Your task to perform on an android device: visit the assistant section in the google photos Image 0: 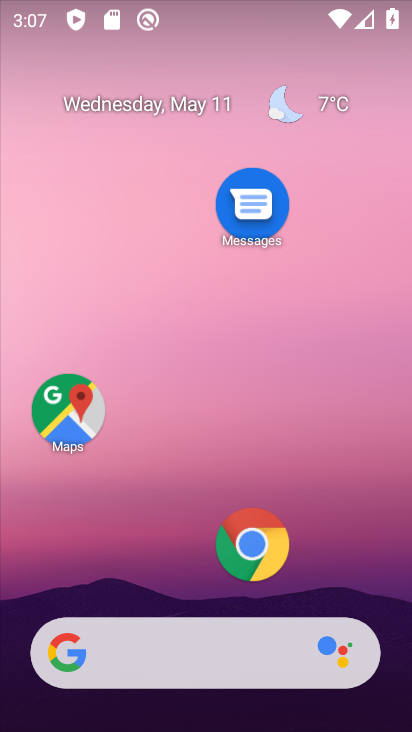
Step 0: drag from (183, 485) to (279, 50)
Your task to perform on an android device: visit the assistant section in the google photos Image 1: 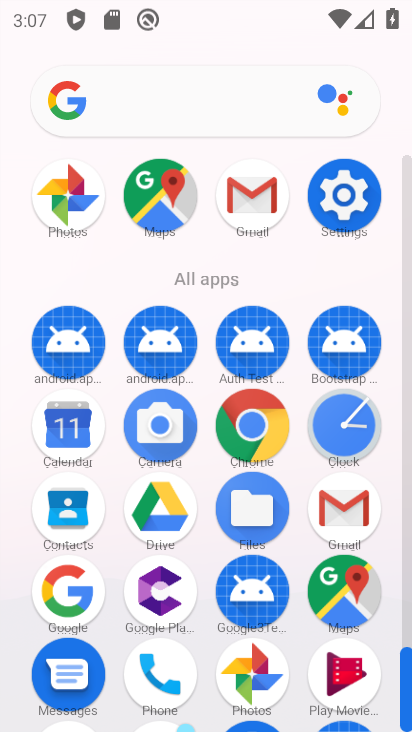
Step 1: click (241, 659)
Your task to perform on an android device: visit the assistant section in the google photos Image 2: 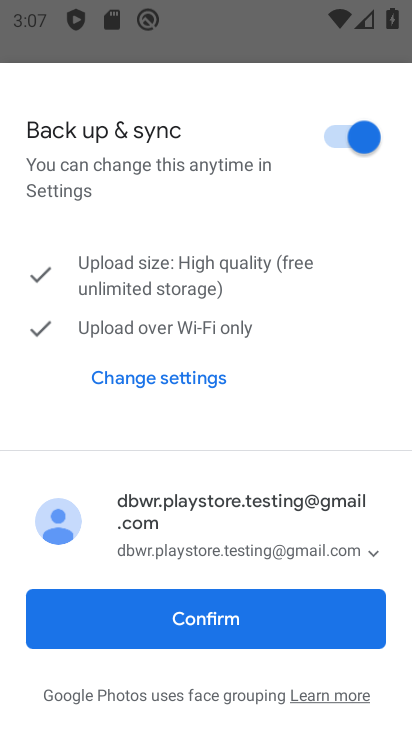
Step 2: click (197, 626)
Your task to perform on an android device: visit the assistant section in the google photos Image 3: 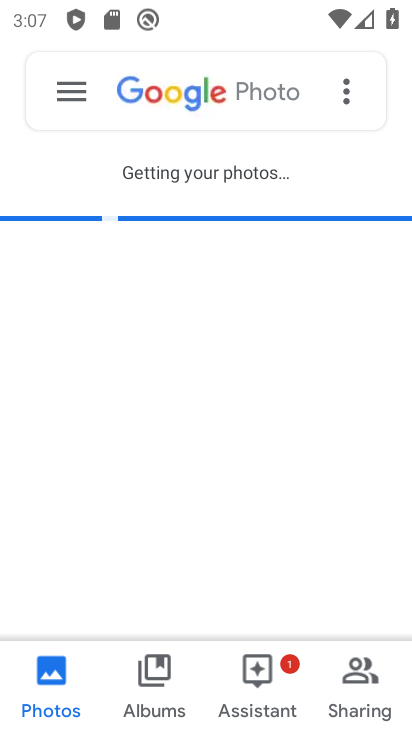
Step 3: click (263, 665)
Your task to perform on an android device: visit the assistant section in the google photos Image 4: 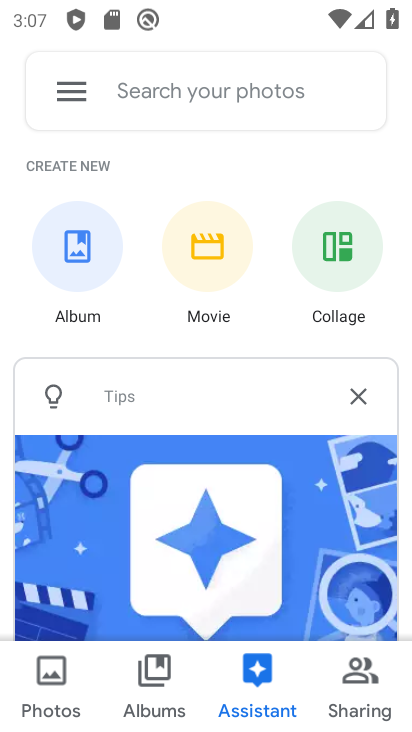
Step 4: task complete